Your task to perform on an android device: When is my next appointment? Image 0: 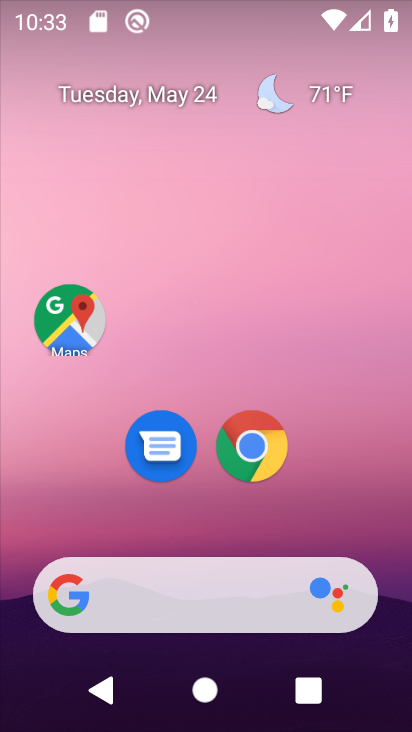
Step 0: drag from (227, 507) to (249, 242)
Your task to perform on an android device: When is my next appointment? Image 1: 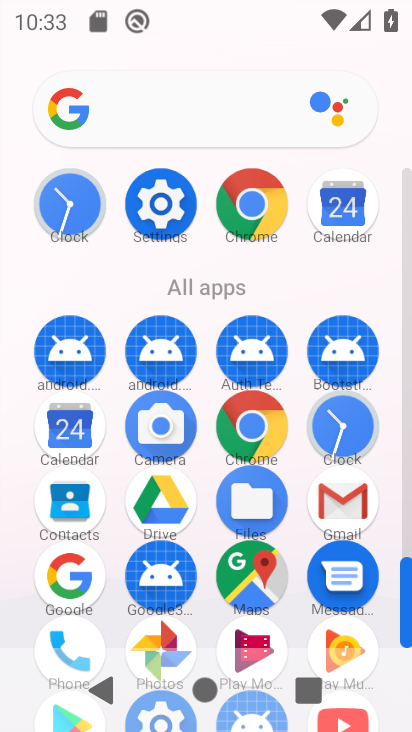
Step 1: click (76, 423)
Your task to perform on an android device: When is my next appointment? Image 2: 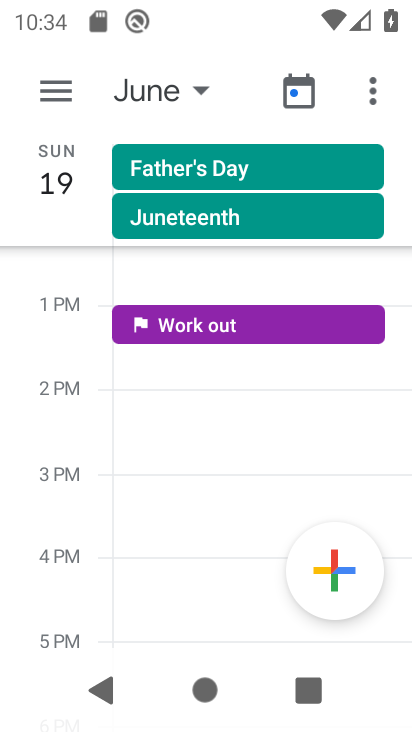
Step 2: task complete